Your task to perform on an android device: What's the weather? Image 0: 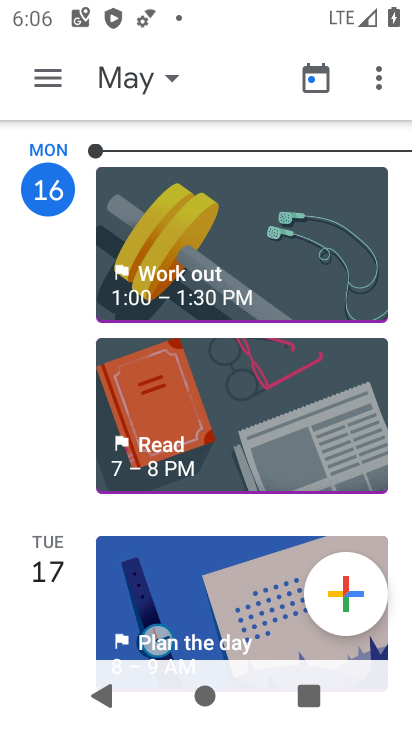
Step 0: press home button
Your task to perform on an android device: What's the weather? Image 1: 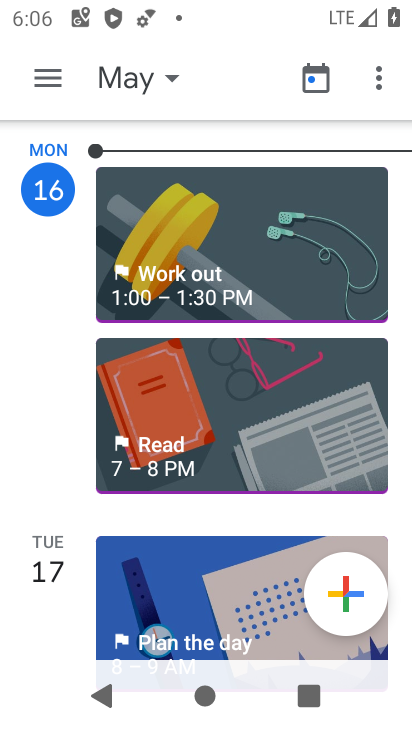
Step 1: press home button
Your task to perform on an android device: What's the weather? Image 2: 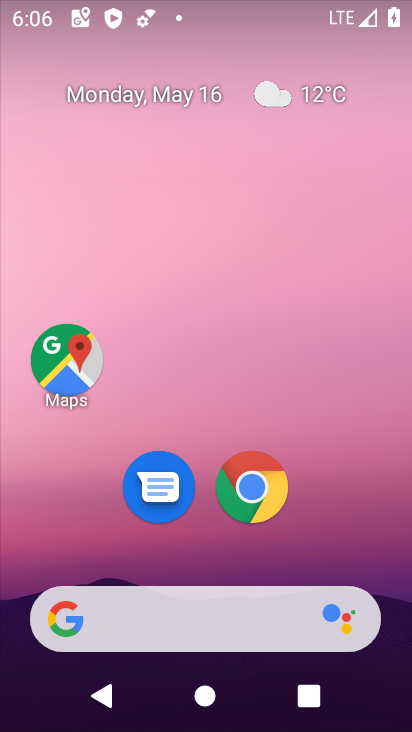
Step 2: click (322, 98)
Your task to perform on an android device: What's the weather? Image 3: 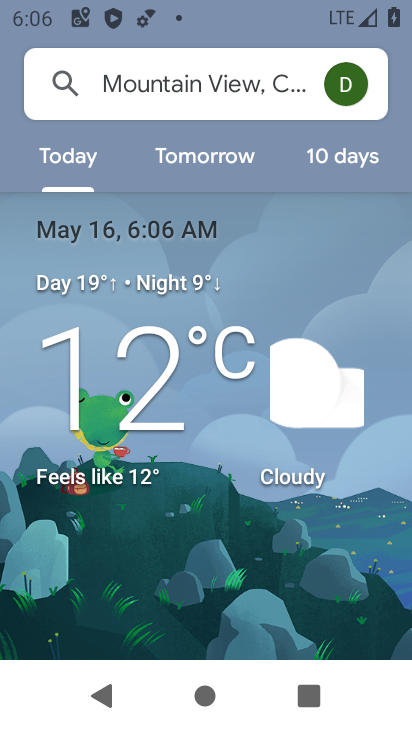
Step 3: task complete